Your task to perform on an android device: turn off javascript in the chrome app Image 0: 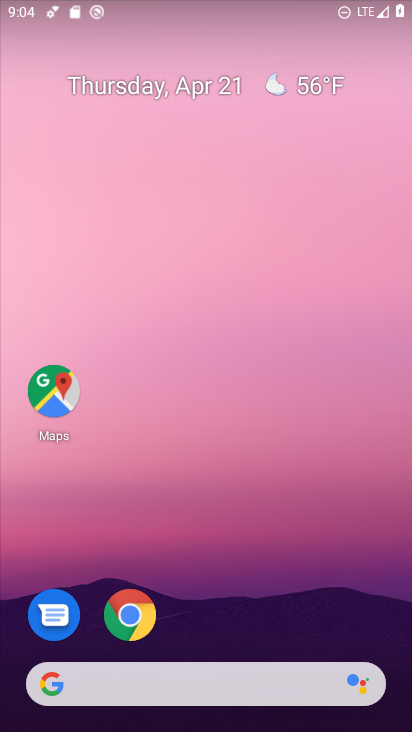
Step 0: drag from (265, 610) to (351, 83)
Your task to perform on an android device: turn off javascript in the chrome app Image 1: 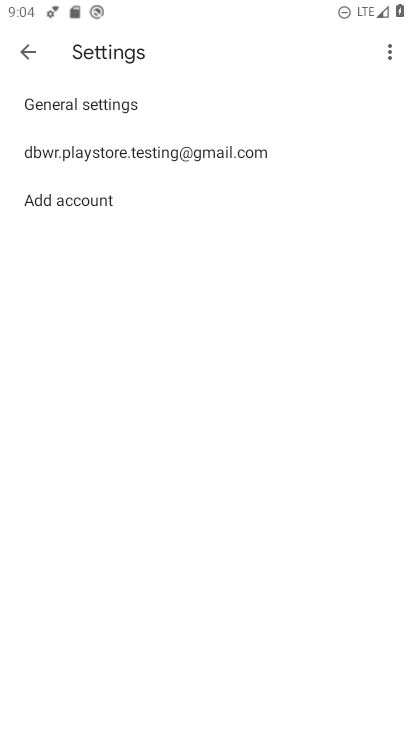
Step 1: press home button
Your task to perform on an android device: turn off javascript in the chrome app Image 2: 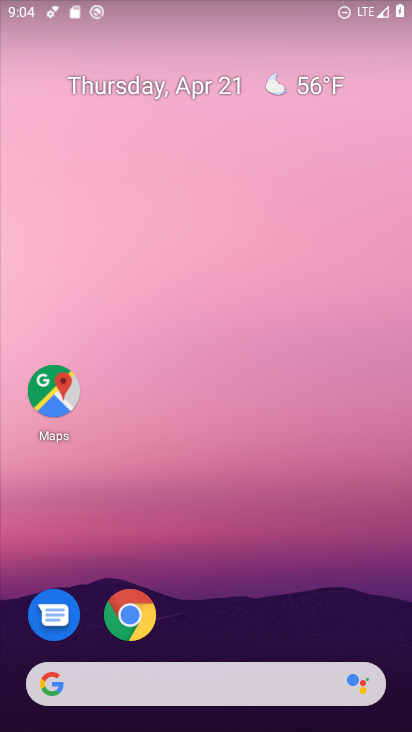
Step 2: click (136, 615)
Your task to perform on an android device: turn off javascript in the chrome app Image 3: 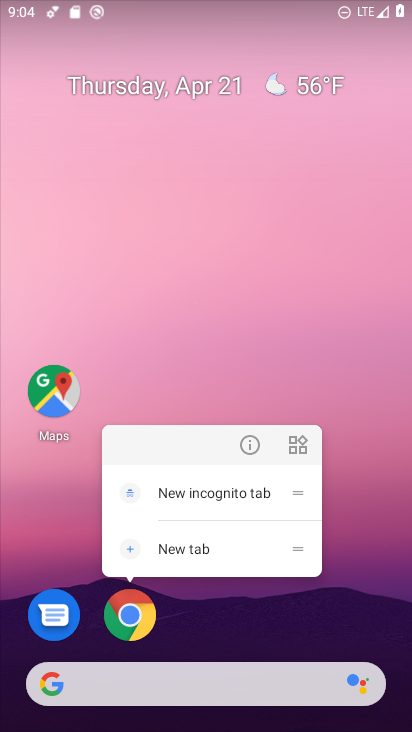
Step 3: click (128, 619)
Your task to perform on an android device: turn off javascript in the chrome app Image 4: 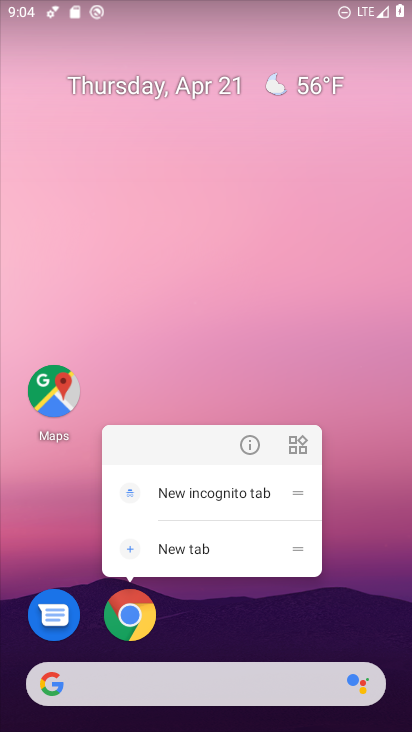
Step 4: click (128, 619)
Your task to perform on an android device: turn off javascript in the chrome app Image 5: 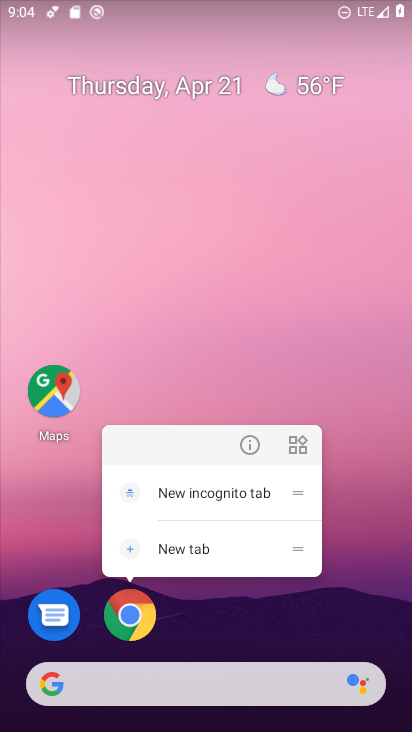
Step 5: click (128, 619)
Your task to perform on an android device: turn off javascript in the chrome app Image 6: 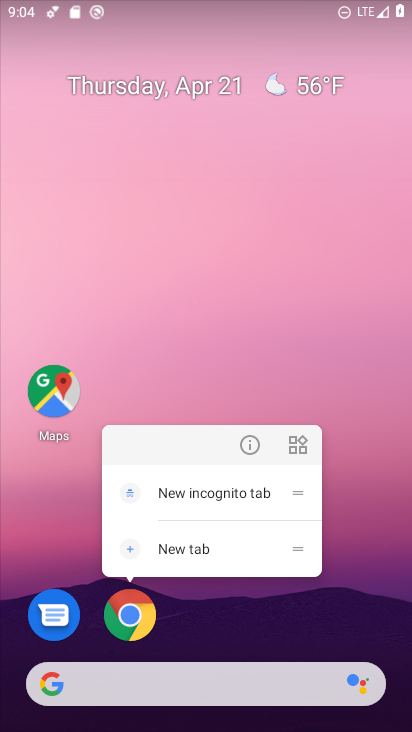
Step 6: click (128, 619)
Your task to perform on an android device: turn off javascript in the chrome app Image 7: 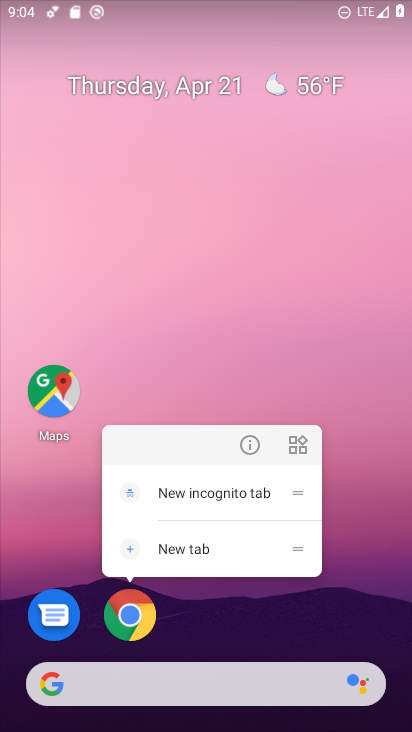
Step 7: click (128, 619)
Your task to perform on an android device: turn off javascript in the chrome app Image 8: 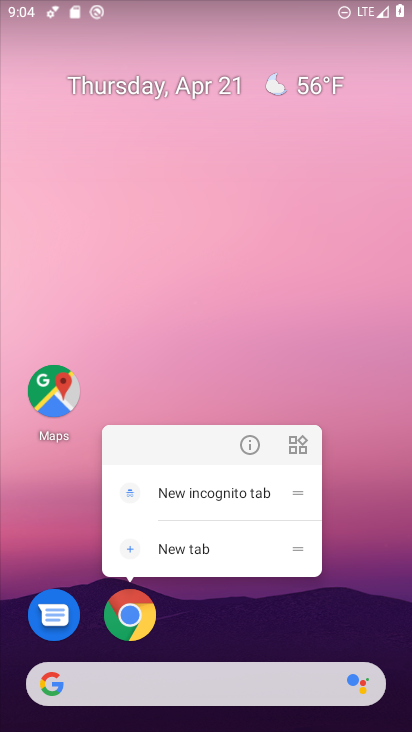
Step 8: click (128, 619)
Your task to perform on an android device: turn off javascript in the chrome app Image 9: 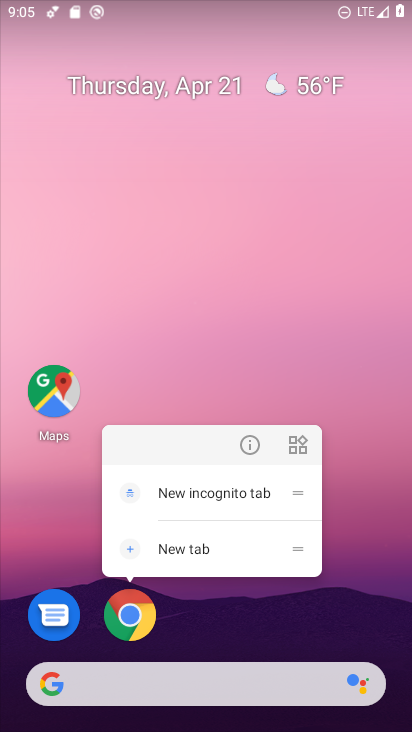
Step 9: click (128, 619)
Your task to perform on an android device: turn off javascript in the chrome app Image 10: 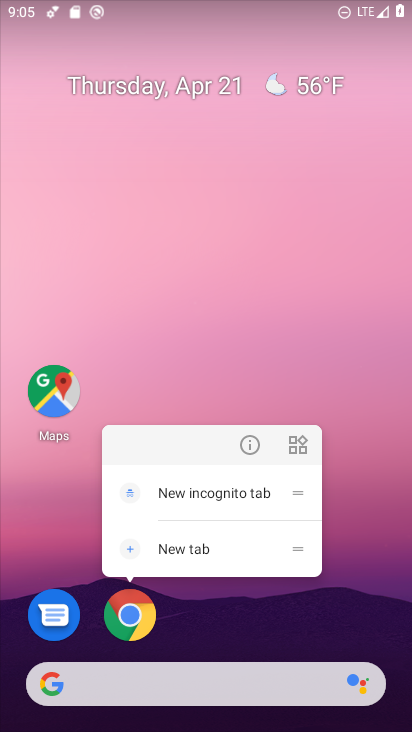
Step 10: click (128, 619)
Your task to perform on an android device: turn off javascript in the chrome app Image 11: 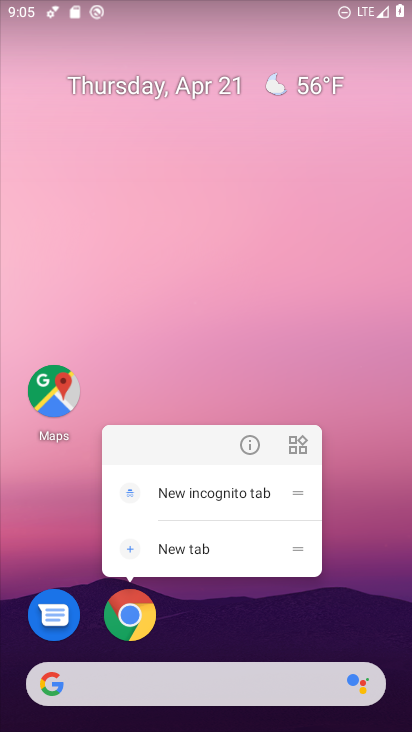
Step 11: click (128, 619)
Your task to perform on an android device: turn off javascript in the chrome app Image 12: 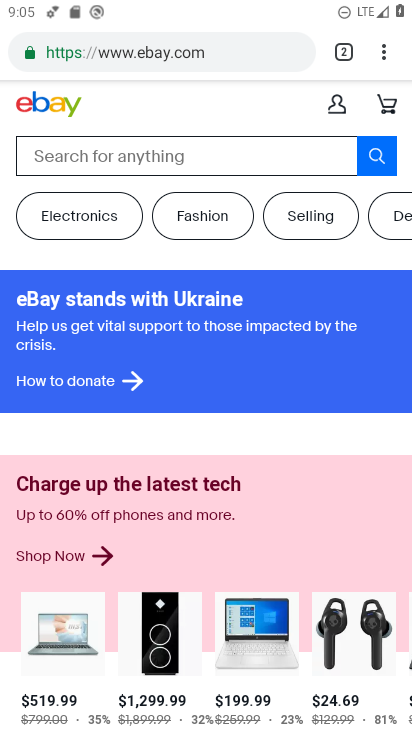
Step 12: click (381, 50)
Your task to perform on an android device: turn off javascript in the chrome app Image 13: 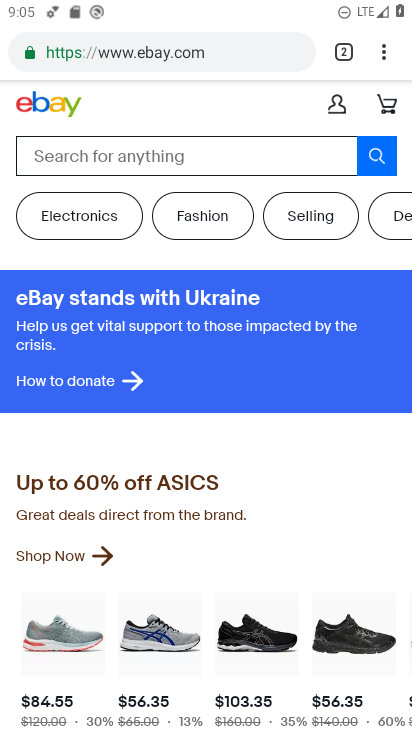
Step 13: drag from (381, 50) to (228, 570)
Your task to perform on an android device: turn off javascript in the chrome app Image 14: 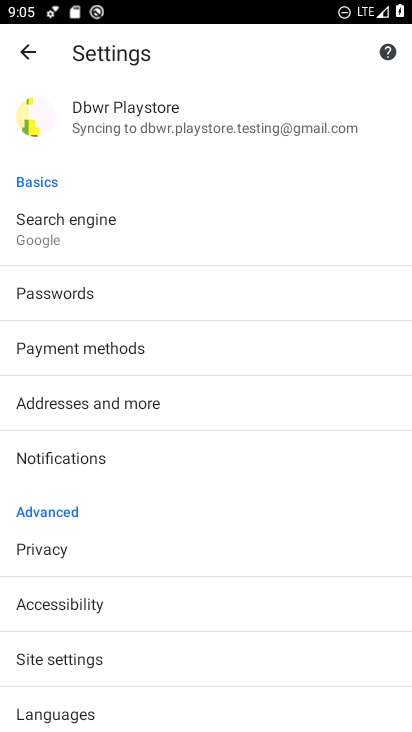
Step 14: drag from (180, 543) to (274, 162)
Your task to perform on an android device: turn off javascript in the chrome app Image 15: 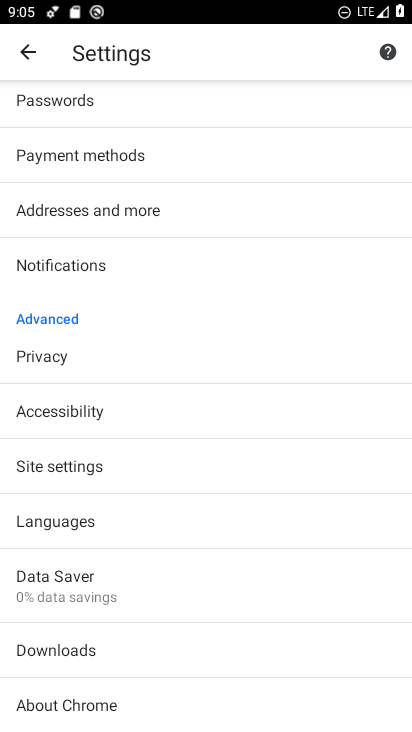
Step 15: drag from (82, 618) to (93, 295)
Your task to perform on an android device: turn off javascript in the chrome app Image 16: 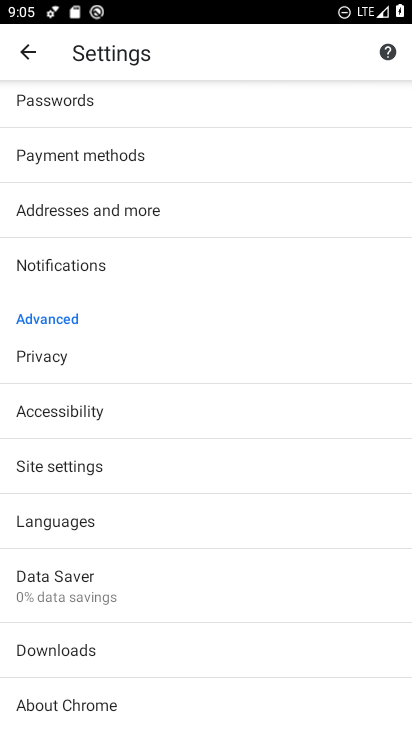
Step 16: click (70, 469)
Your task to perform on an android device: turn off javascript in the chrome app Image 17: 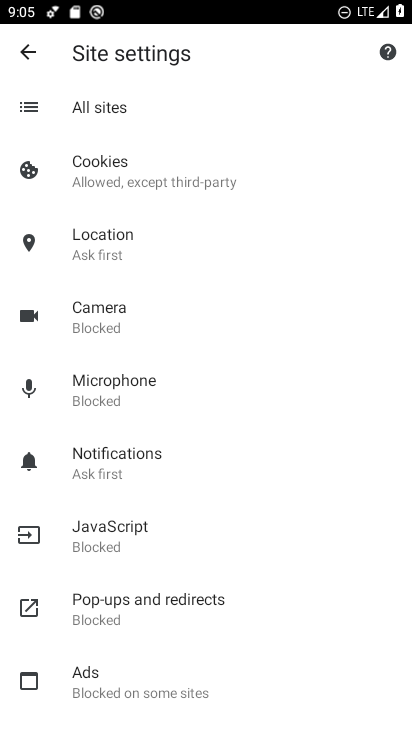
Step 17: click (110, 547)
Your task to perform on an android device: turn off javascript in the chrome app Image 18: 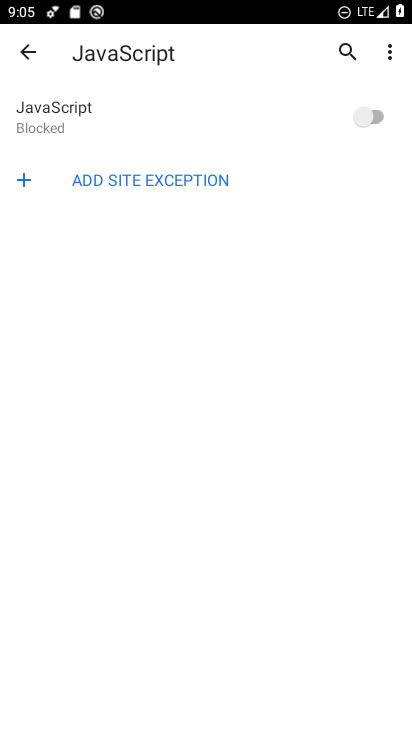
Step 18: task complete